Your task to perform on an android device: open device folders in google photos Image 0: 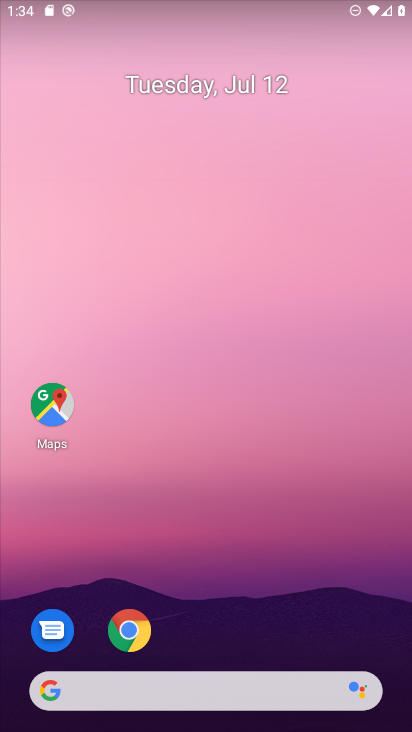
Step 0: drag from (397, 627) to (322, 68)
Your task to perform on an android device: open device folders in google photos Image 1: 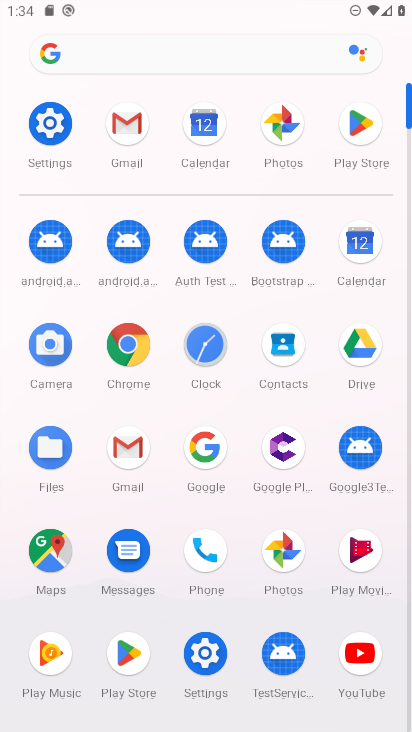
Step 1: click (280, 548)
Your task to perform on an android device: open device folders in google photos Image 2: 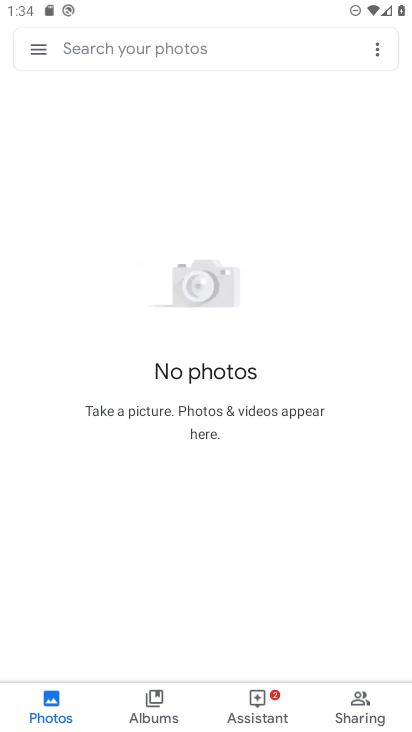
Step 2: click (41, 48)
Your task to perform on an android device: open device folders in google photos Image 3: 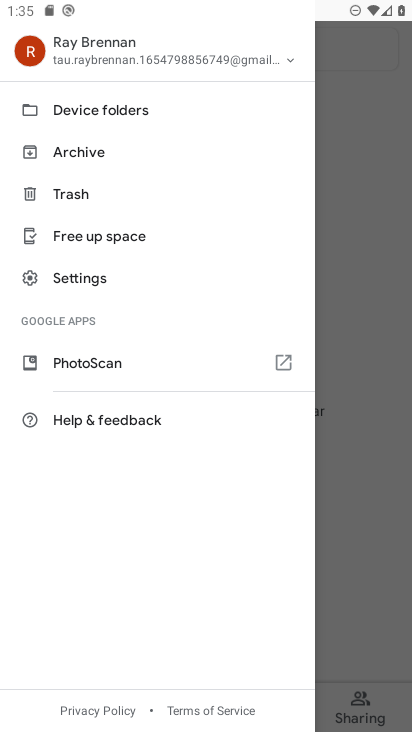
Step 3: click (85, 117)
Your task to perform on an android device: open device folders in google photos Image 4: 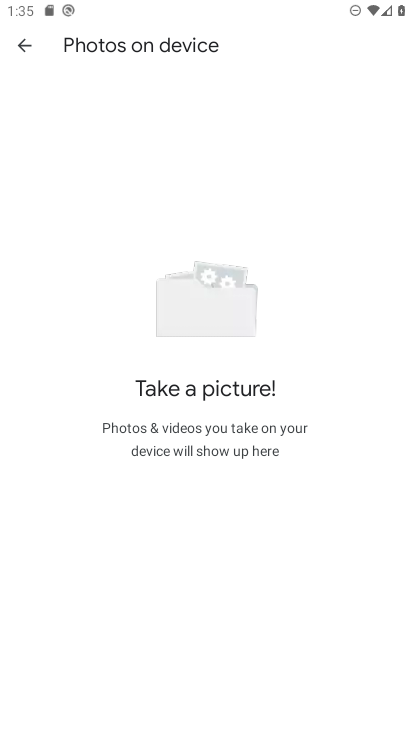
Step 4: task complete